Your task to perform on an android device: open device folders in google photos Image 0: 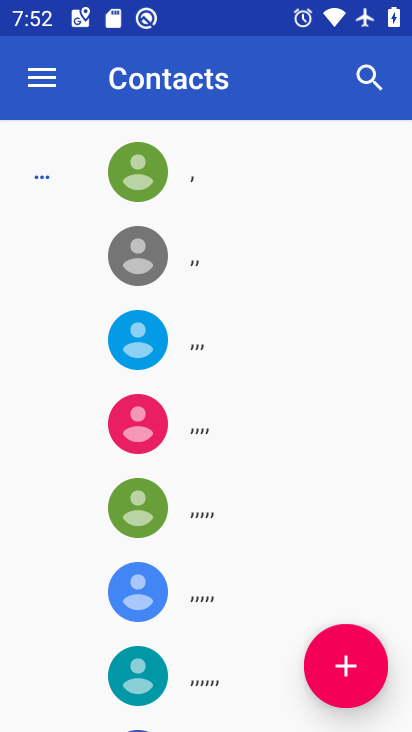
Step 0: press home button
Your task to perform on an android device: open device folders in google photos Image 1: 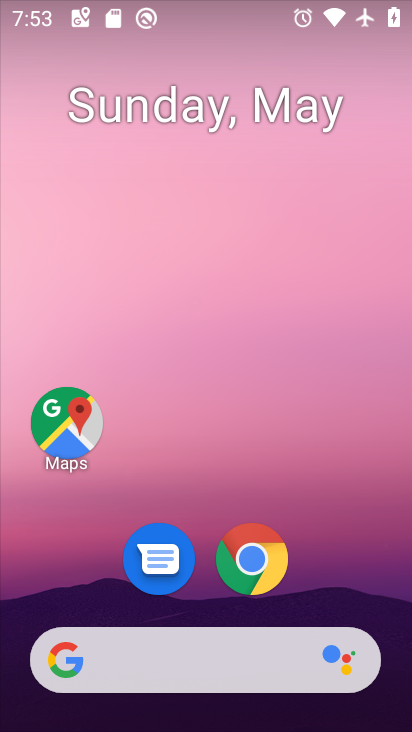
Step 1: drag from (219, 649) to (299, 252)
Your task to perform on an android device: open device folders in google photos Image 2: 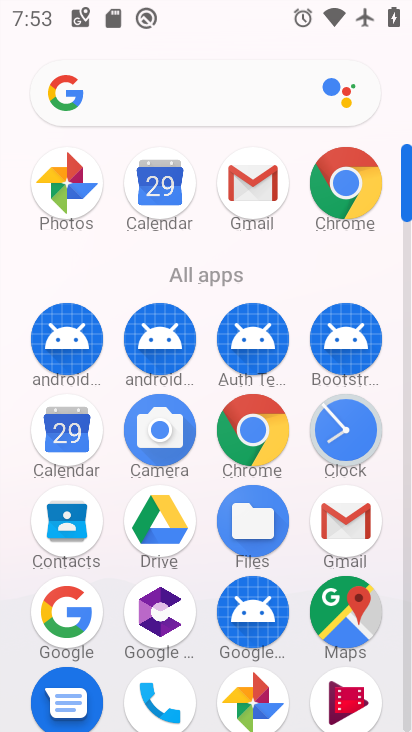
Step 2: click (67, 189)
Your task to perform on an android device: open device folders in google photos Image 3: 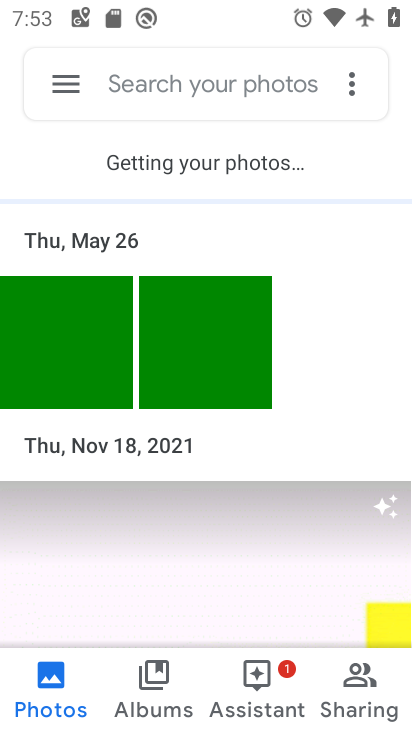
Step 3: click (72, 90)
Your task to perform on an android device: open device folders in google photos Image 4: 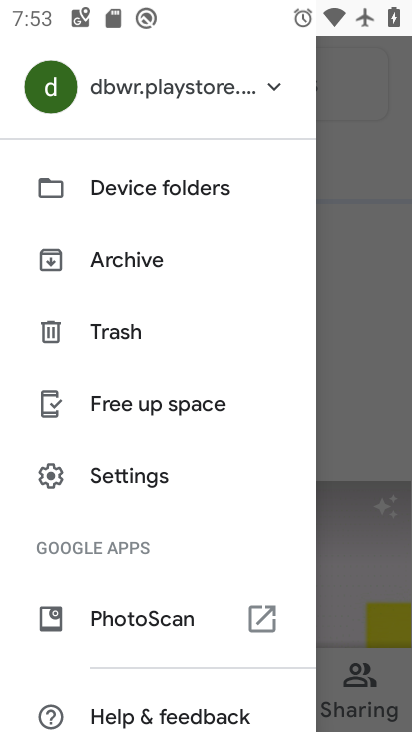
Step 4: click (103, 185)
Your task to perform on an android device: open device folders in google photos Image 5: 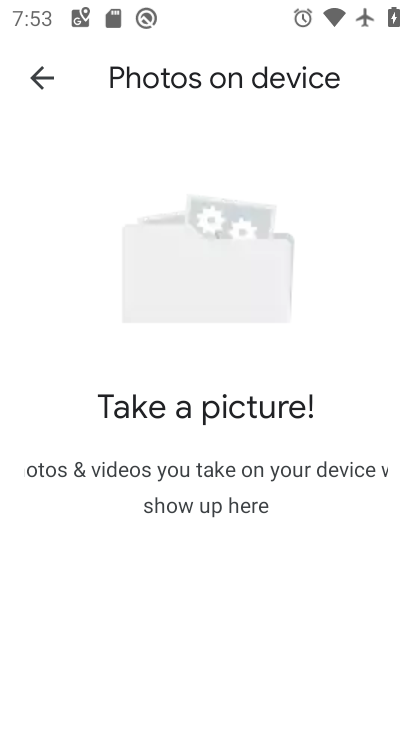
Step 5: task complete